Your task to perform on an android device: Is it going to rain tomorrow? Image 0: 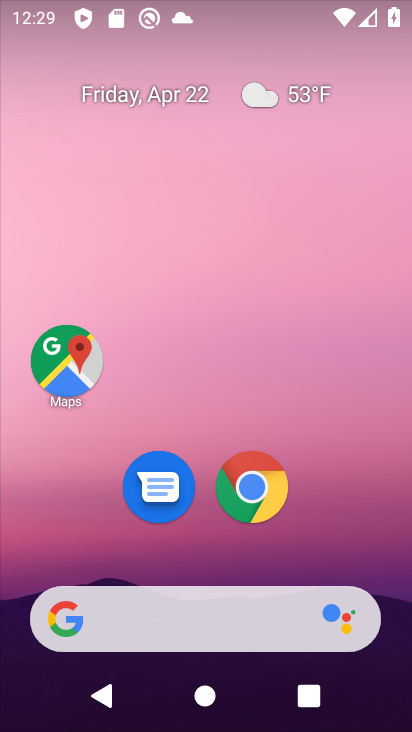
Step 0: click (287, 102)
Your task to perform on an android device: Is it going to rain tomorrow? Image 1: 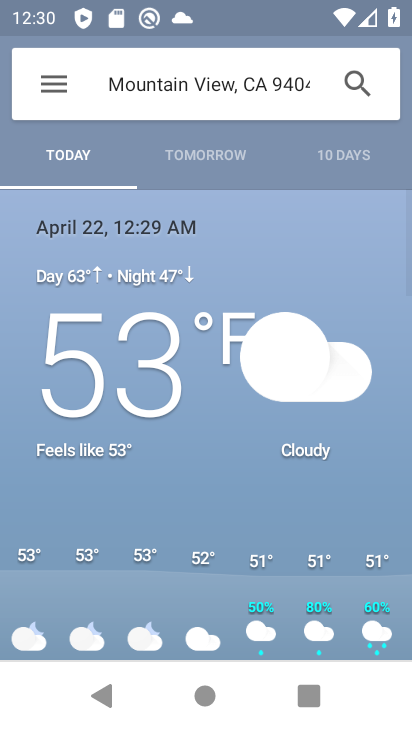
Step 1: click (202, 169)
Your task to perform on an android device: Is it going to rain tomorrow? Image 2: 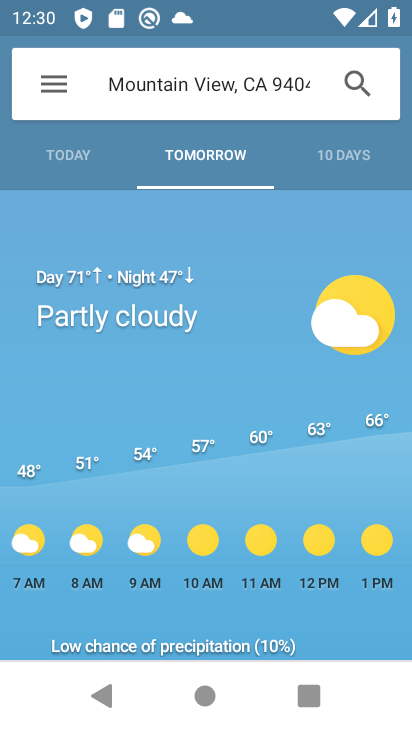
Step 2: task complete